Your task to perform on an android device: toggle pop-ups in chrome Image 0: 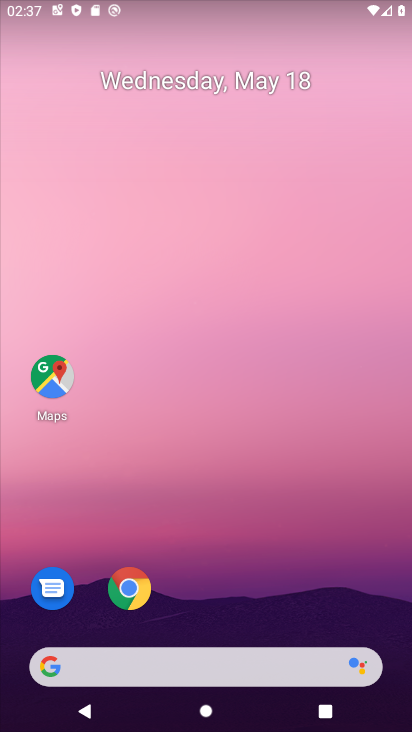
Step 0: press home button
Your task to perform on an android device: toggle pop-ups in chrome Image 1: 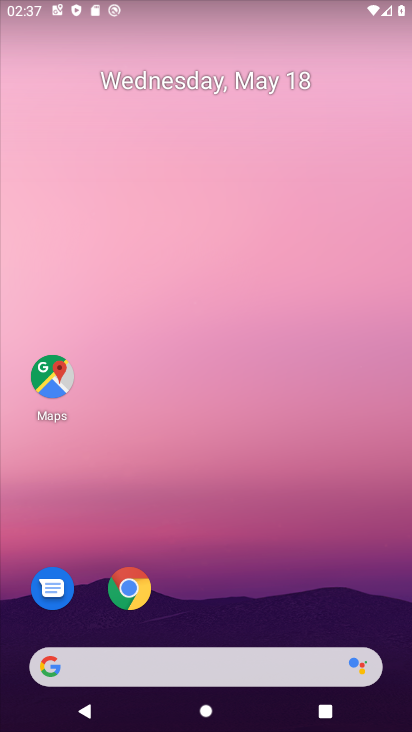
Step 1: click (123, 594)
Your task to perform on an android device: toggle pop-ups in chrome Image 2: 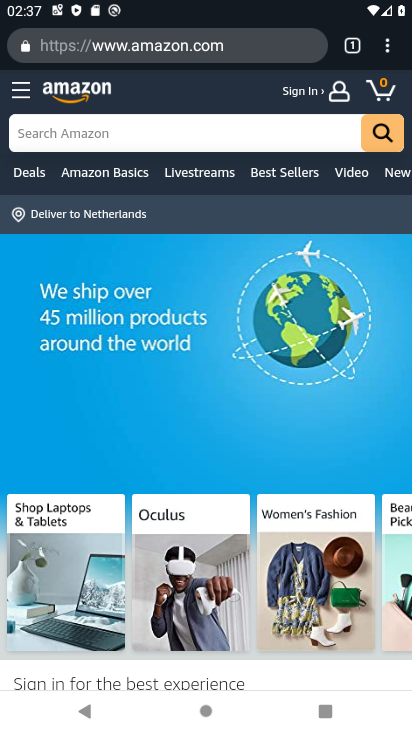
Step 2: click (383, 44)
Your task to perform on an android device: toggle pop-ups in chrome Image 3: 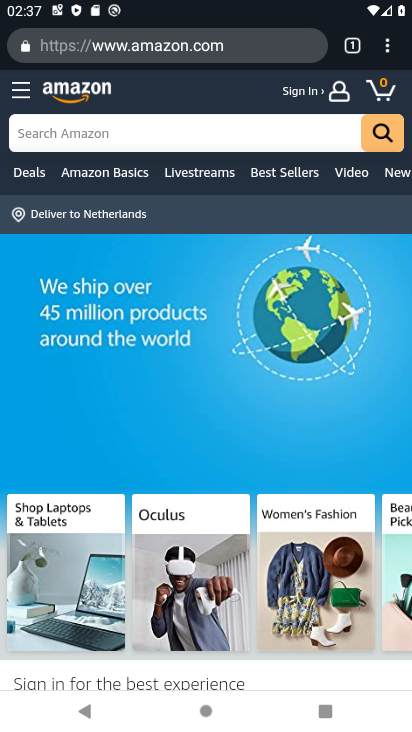
Step 3: click (390, 48)
Your task to perform on an android device: toggle pop-ups in chrome Image 4: 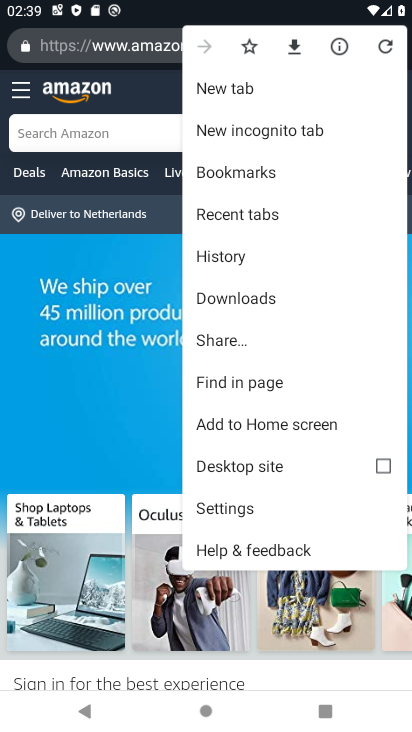
Step 4: click (240, 507)
Your task to perform on an android device: toggle pop-ups in chrome Image 5: 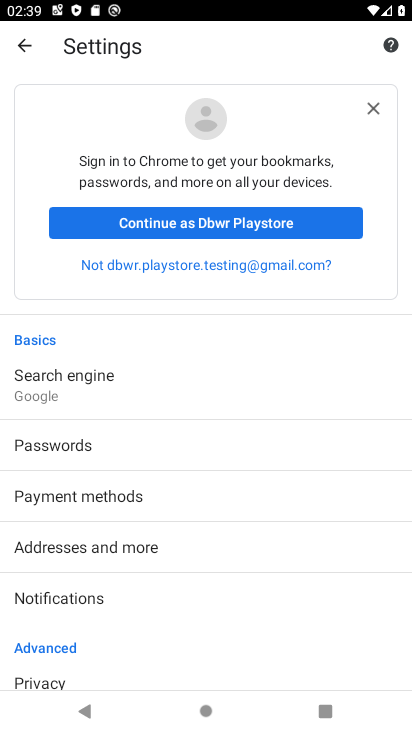
Step 5: drag from (98, 656) to (261, 251)
Your task to perform on an android device: toggle pop-ups in chrome Image 6: 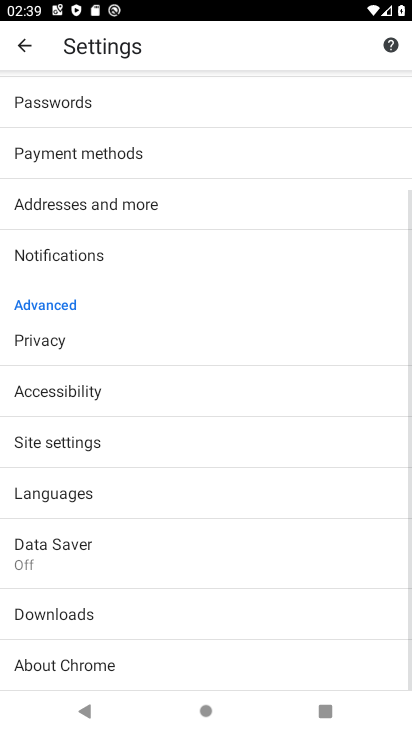
Step 6: click (85, 449)
Your task to perform on an android device: toggle pop-ups in chrome Image 7: 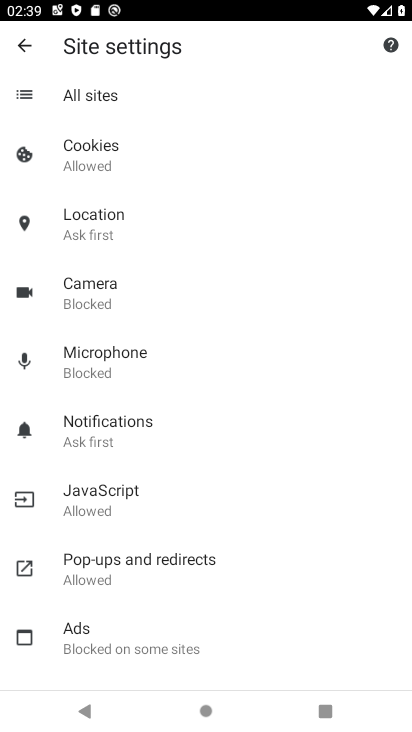
Step 7: click (95, 560)
Your task to perform on an android device: toggle pop-ups in chrome Image 8: 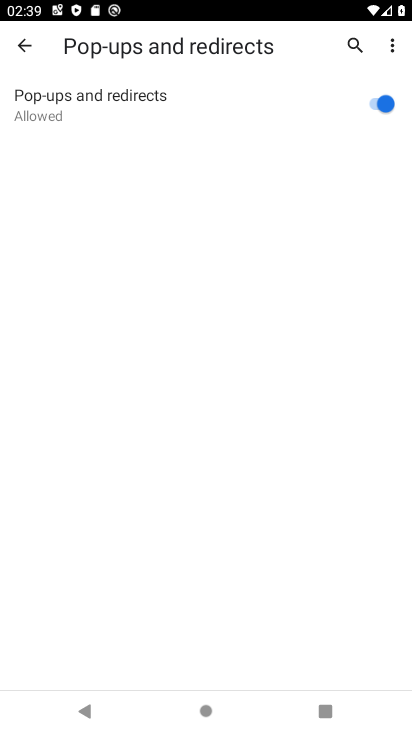
Step 8: task complete